Your task to perform on an android device: turn off improve location accuracy Image 0: 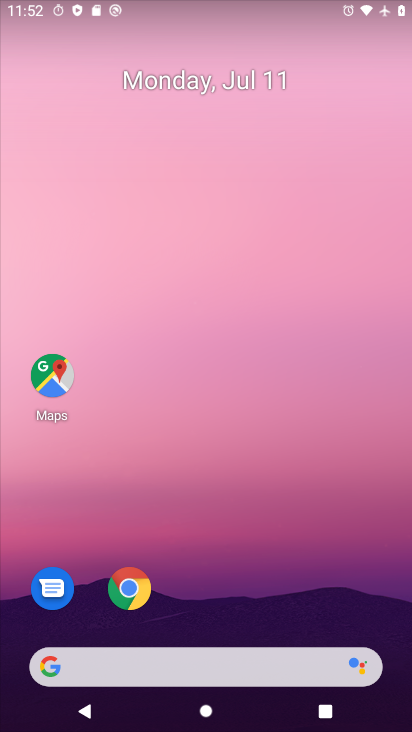
Step 0: drag from (198, 576) to (320, 123)
Your task to perform on an android device: turn off improve location accuracy Image 1: 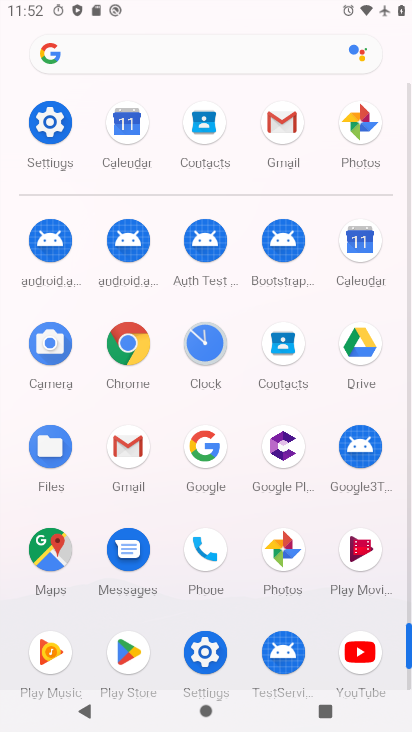
Step 1: click (49, 129)
Your task to perform on an android device: turn off improve location accuracy Image 2: 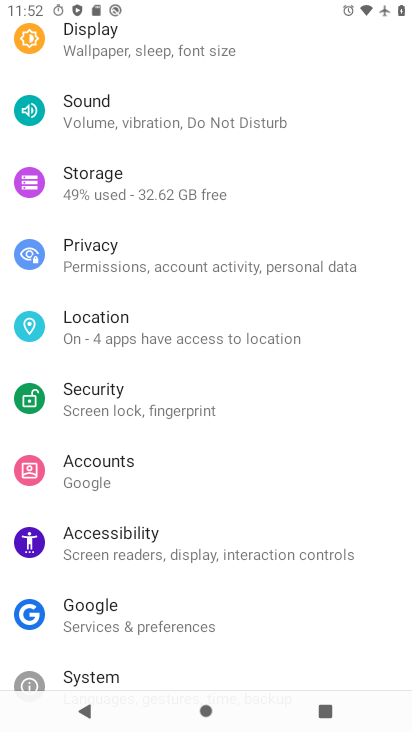
Step 2: drag from (275, 171) to (213, 628)
Your task to perform on an android device: turn off improve location accuracy Image 3: 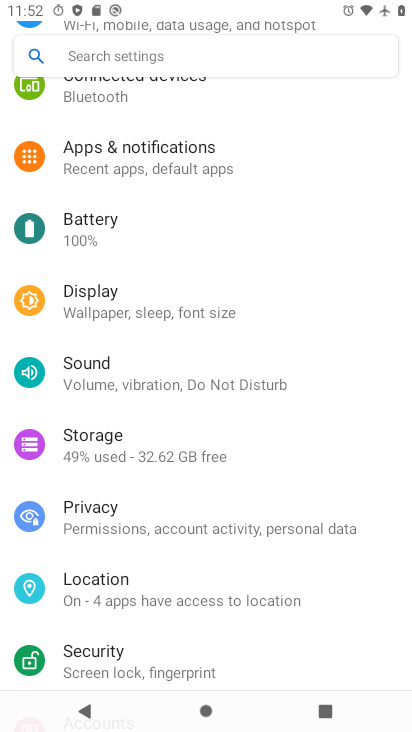
Step 3: click (111, 581)
Your task to perform on an android device: turn off improve location accuracy Image 4: 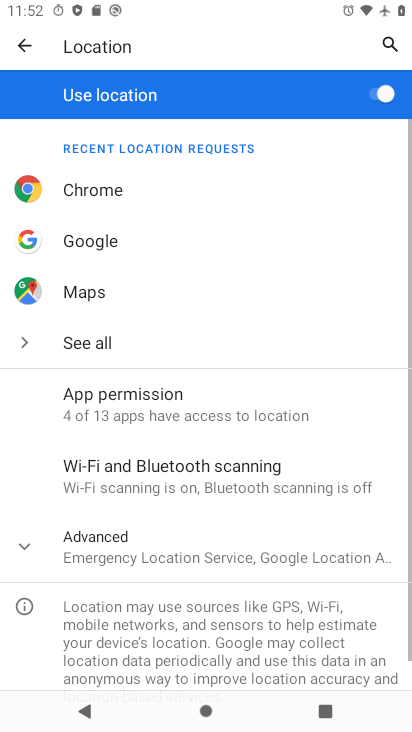
Step 4: click (123, 540)
Your task to perform on an android device: turn off improve location accuracy Image 5: 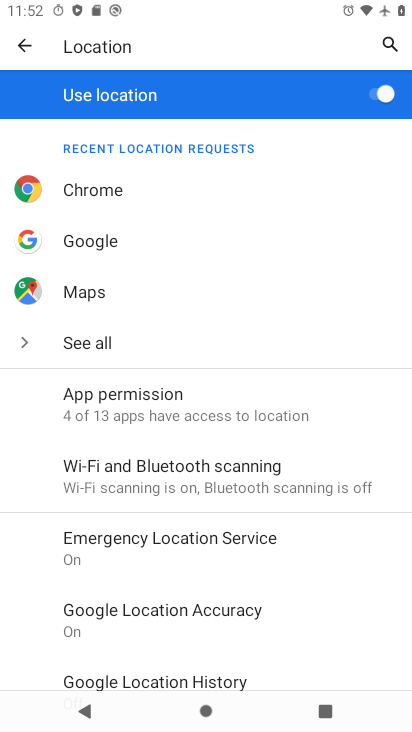
Step 5: drag from (155, 587) to (284, 267)
Your task to perform on an android device: turn off improve location accuracy Image 6: 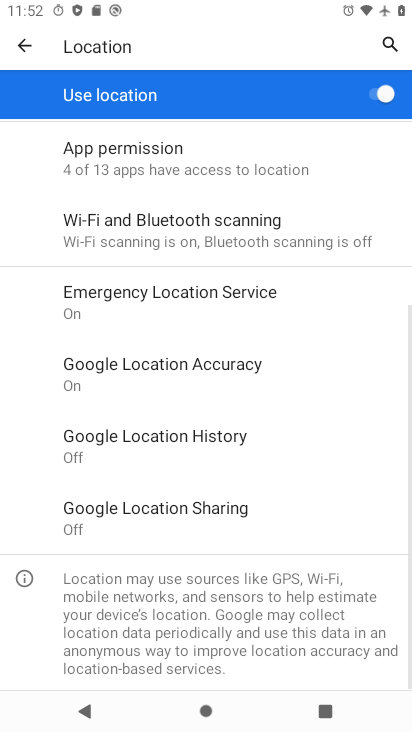
Step 6: click (228, 362)
Your task to perform on an android device: turn off improve location accuracy Image 7: 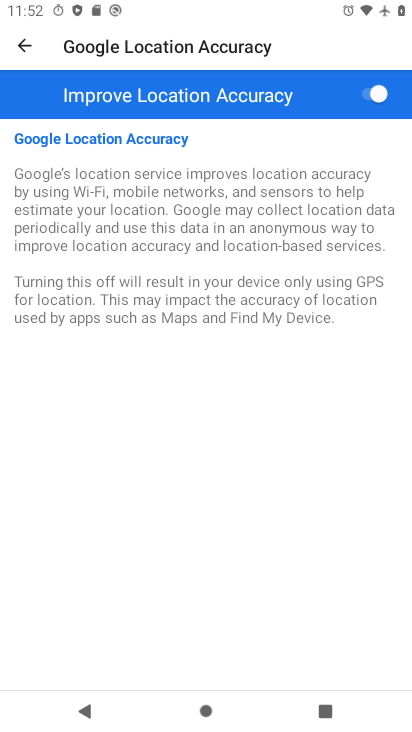
Step 7: click (370, 86)
Your task to perform on an android device: turn off improve location accuracy Image 8: 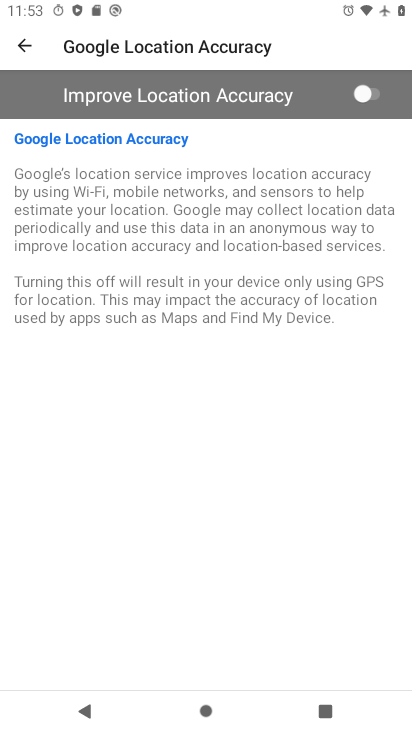
Step 8: task complete